Your task to perform on an android device: toggle airplane mode Image 0: 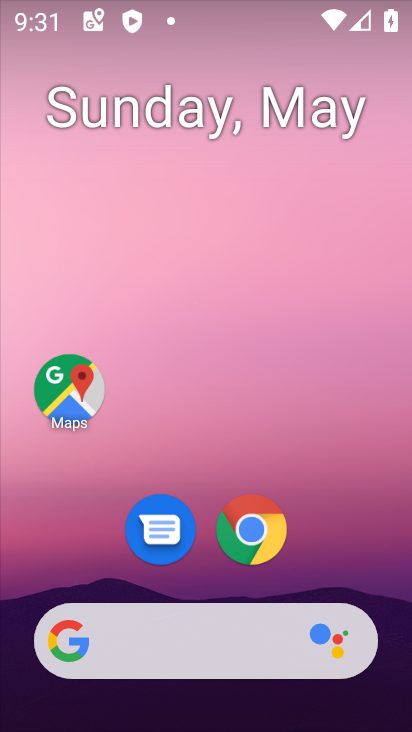
Step 0: drag from (352, 559) to (298, 79)
Your task to perform on an android device: toggle airplane mode Image 1: 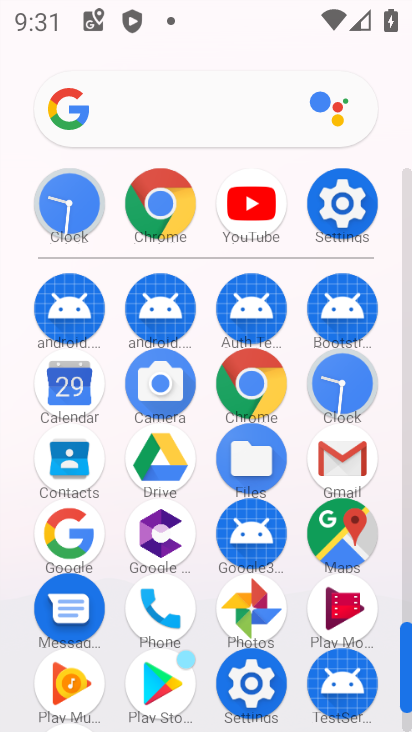
Step 1: click (346, 204)
Your task to perform on an android device: toggle airplane mode Image 2: 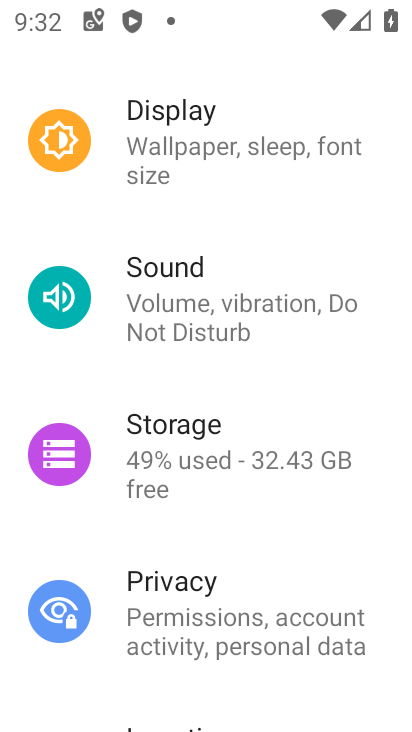
Step 2: drag from (276, 214) to (323, 655)
Your task to perform on an android device: toggle airplane mode Image 3: 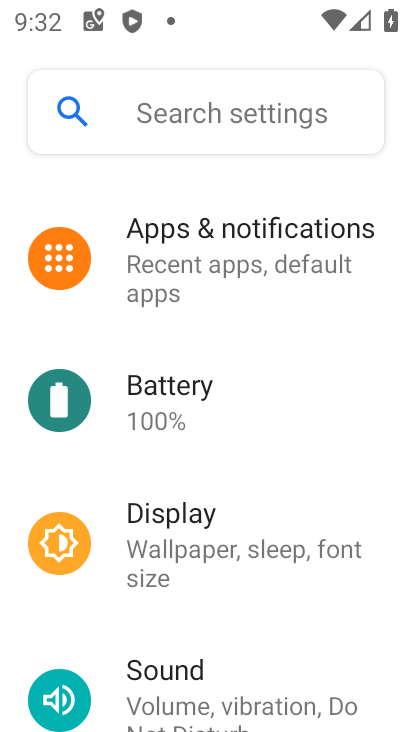
Step 3: drag from (238, 260) to (391, 709)
Your task to perform on an android device: toggle airplane mode Image 4: 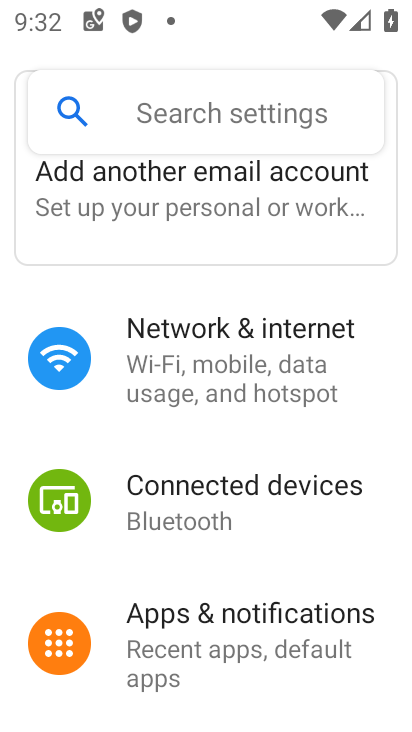
Step 4: click (235, 353)
Your task to perform on an android device: toggle airplane mode Image 5: 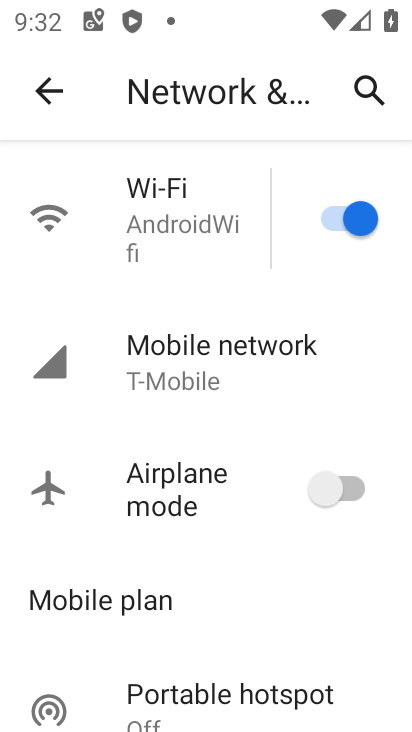
Step 5: click (294, 471)
Your task to perform on an android device: toggle airplane mode Image 6: 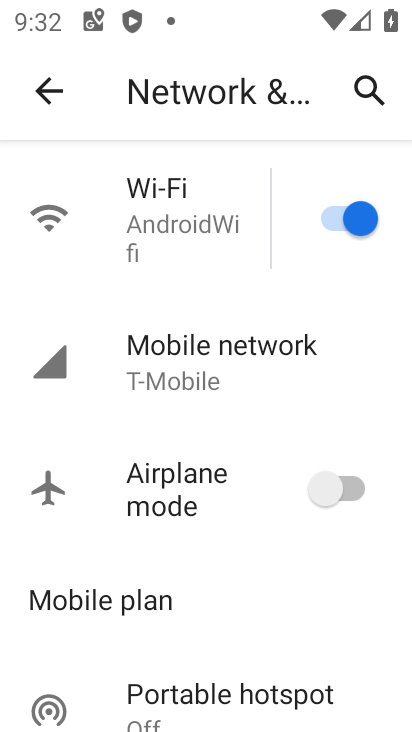
Step 6: click (294, 471)
Your task to perform on an android device: toggle airplane mode Image 7: 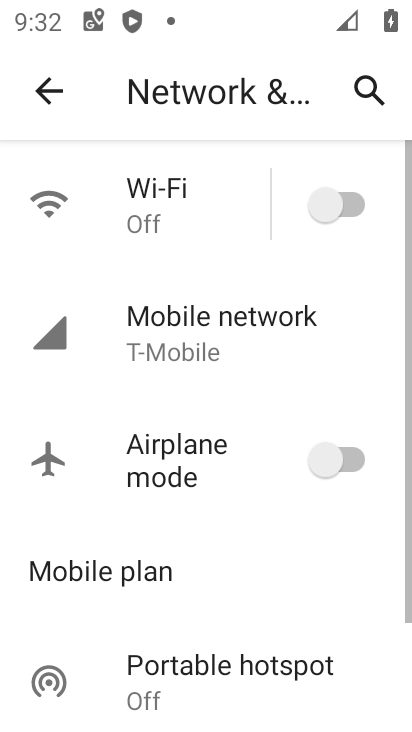
Step 7: task complete